Your task to perform on an android device: visit the assistant section in the google photos Image 0: 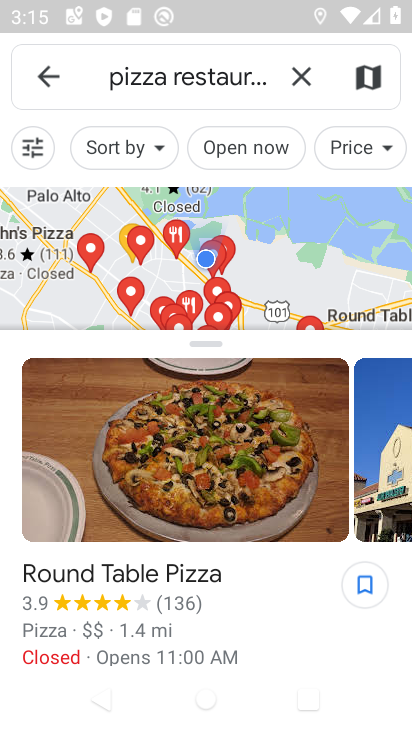
Step 0: press back button
Your task to perform on an android device: visit the assistant section in the google photos Image 1: 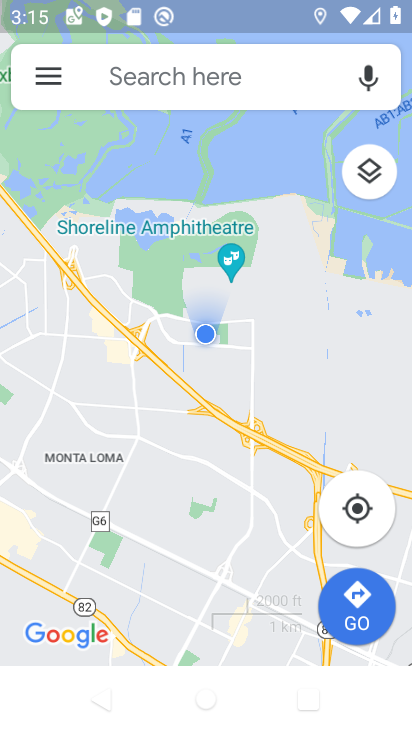
Step 1: press home button
Your task to perform on an android device: visit the assistant section in the google photos Image 2: 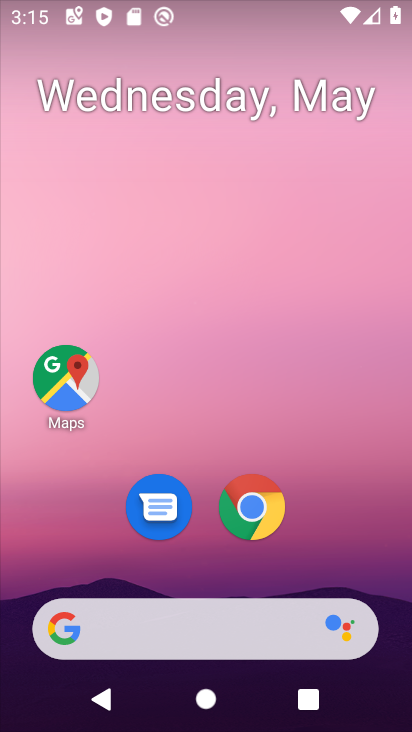
Step 2: drag from (220, 559) to (270, 98)
Your task to perform on an android device: visit the assistant section in the google photos Image 3: 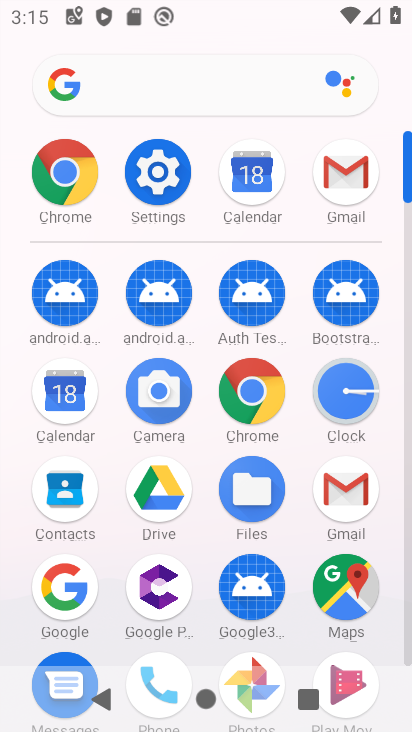
Step 3: drag from (237, 519) to (237, 260)
Your task to perform on an android device: visit the assistant section in the google photos Image 4: 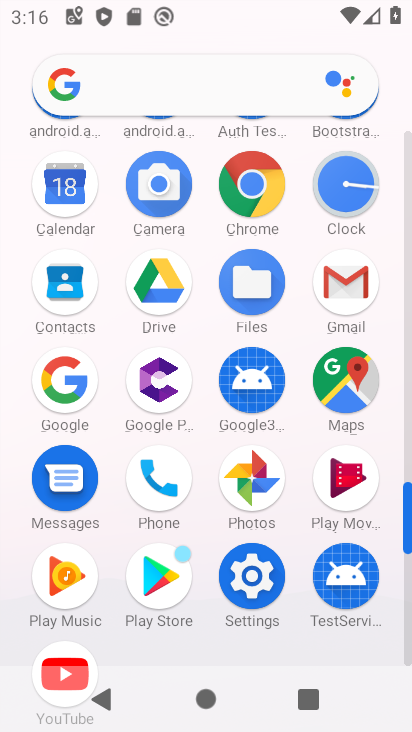
Step 4: click (259, 481)
Your task to perform on an android device: visit the assistant section in the google photos Image 5: 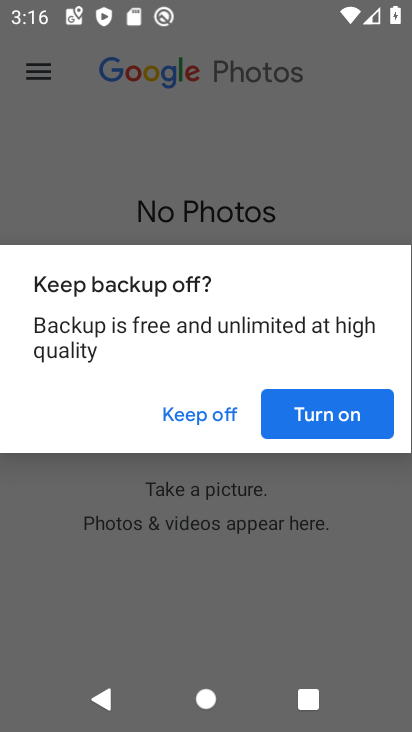
Step 5: click (200, 398)
Your task to perform on an android device: visit the assistant section in the google photos Image 6: 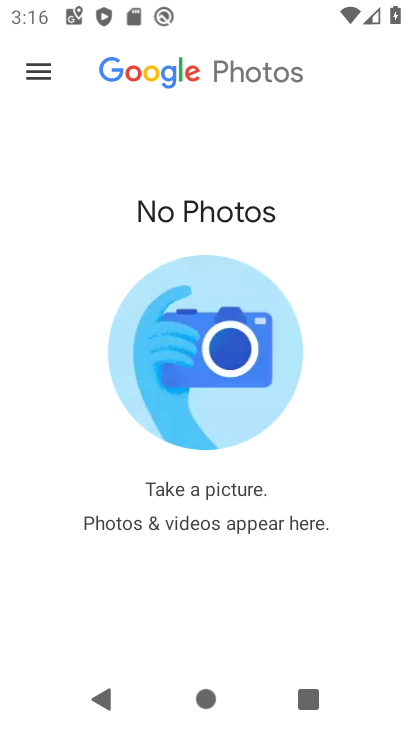
Step 6: task complete